Your task to perform on an android device: Go to accessibility settings Image 0: 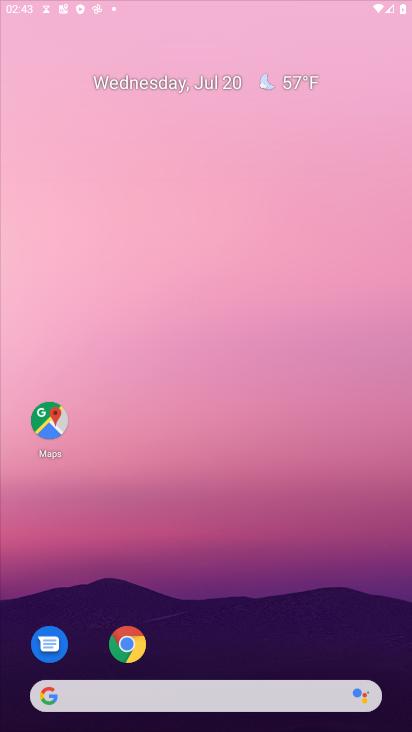
Step 0: press home button
Your task to perform on an android device: Go to accessibility settings Image 1: 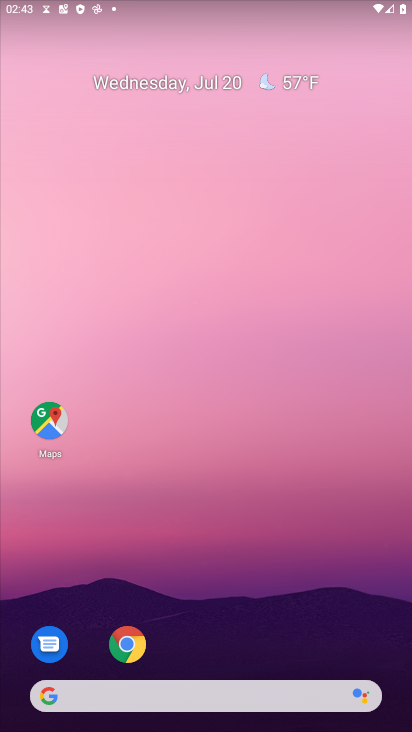
Step 1: drag from (250, 646) to (107, 83)
Your task to perform on an android device: Go to accessibility settings Image 2: 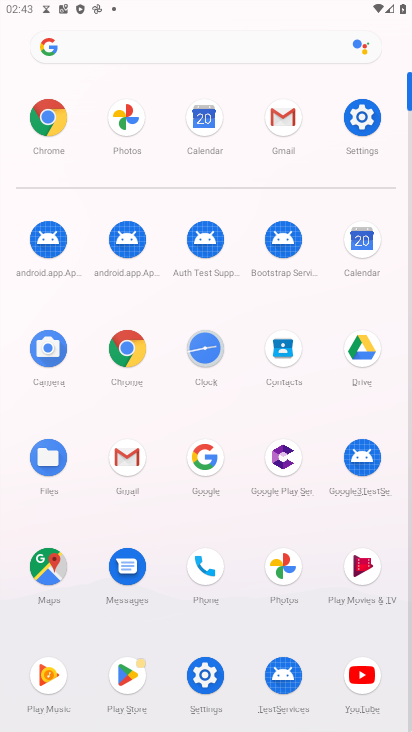
Step 2: click (354, 111)
Your task to perform on an android device: Go to accessibility settings Image 3: 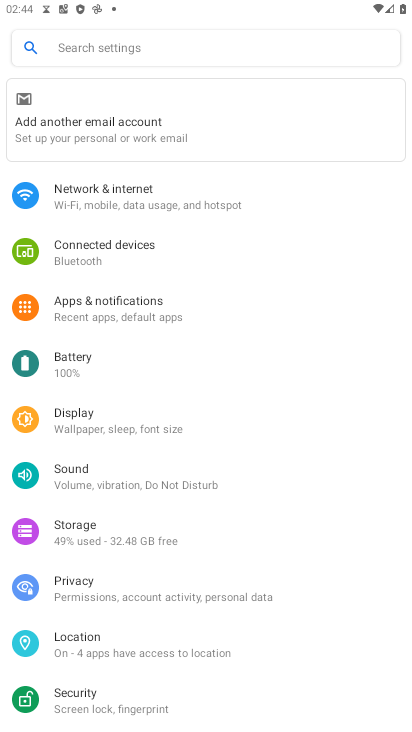
Step 3: drag from (322, 647) to (25, 17)
Your task to perform on an android device: Go to accessibility settings Image 4: 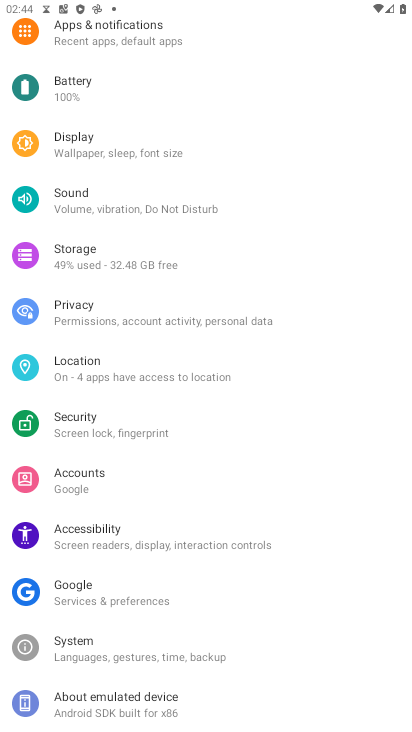
Step 4: click (74, 531)
Your task to perform on an android device: Go to accessibility settings Image 5: 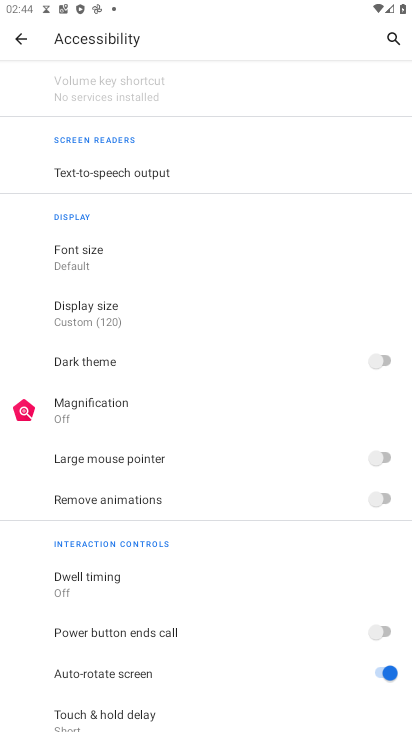
Step 5: task complete